Your task to perform on an android device: open a bookmark in the chrome app Image 0: 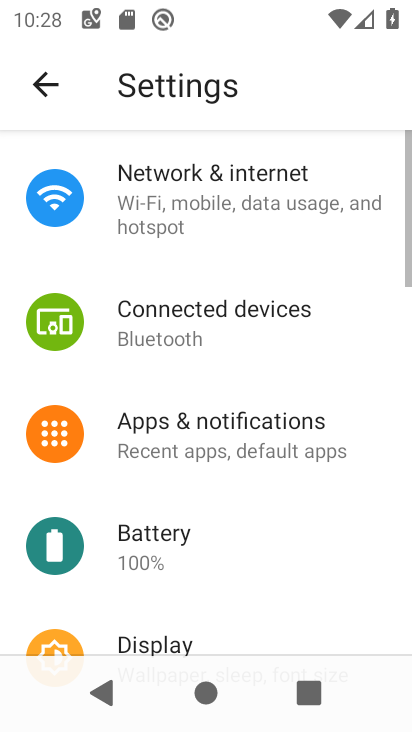
Step 0: press home button
Your task to perform on an android device: open a bookmark in the chrome app Image 1: 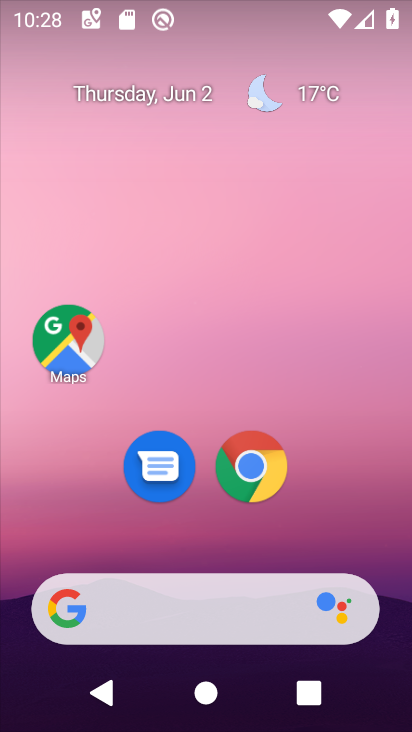
Step 1: drag from (259, 459) to (288, 229)
Your task to perform on an android device: open a bookmark in the chrome app Image 2: 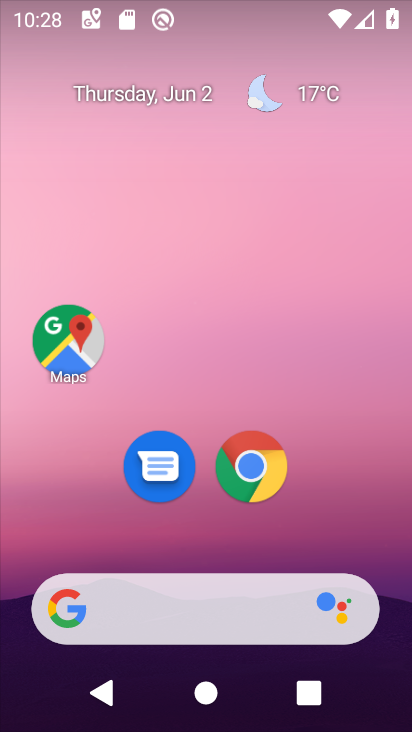
Step 2: click (240, 477)
Your task to perform on an android device: open a bookmark in the chrome app Image 3: 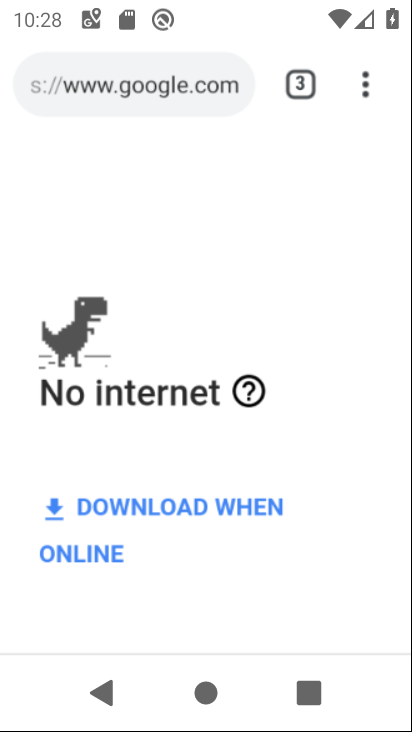
Step 3: click (386, 55)
Your task to perform on an android device: open a bookmark in the chrome app Image 4: 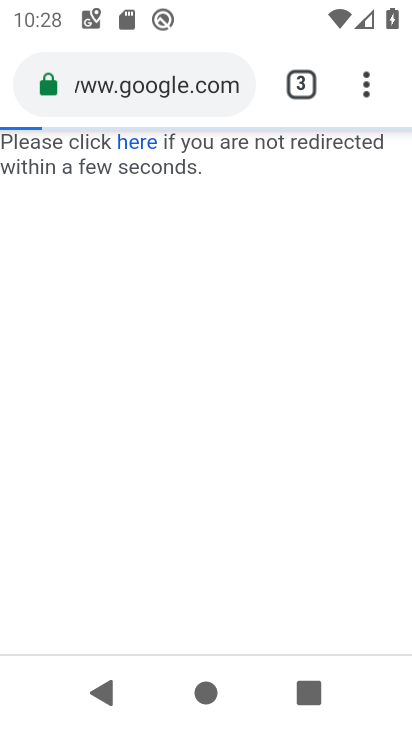
Step 4: click (372, 85)
Your task to perform on an android device: open a bookmark in the chrome app Image 5: 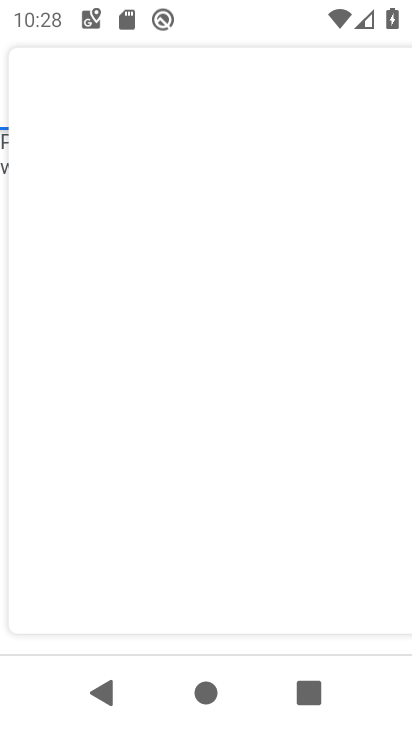
Step 5: click (371, 86)
Your task to perform on an android device: open a bookmark in the chrome app Image 6: 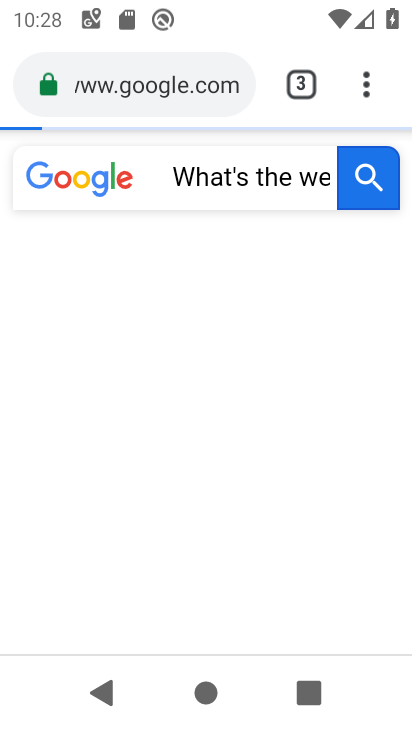
Step 6: click (368, 95)
Your task to perform on an android device: open a bookmark in the chrome app Image 7: 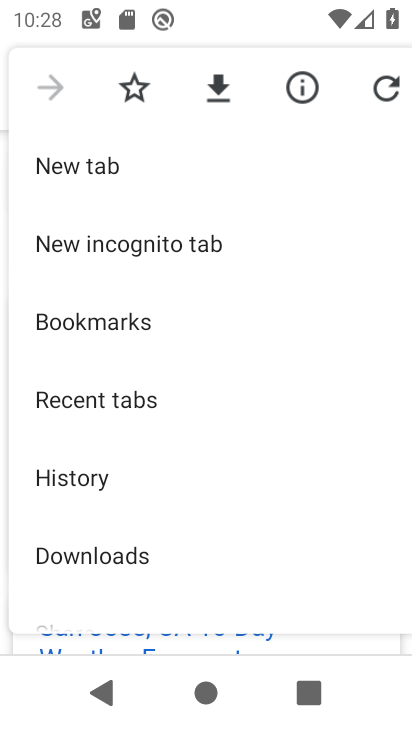
Step 7: drag from (123, 526) to (153, 395)
Your task to perform on an android device: open a bookmark in the chrome app Image 8: 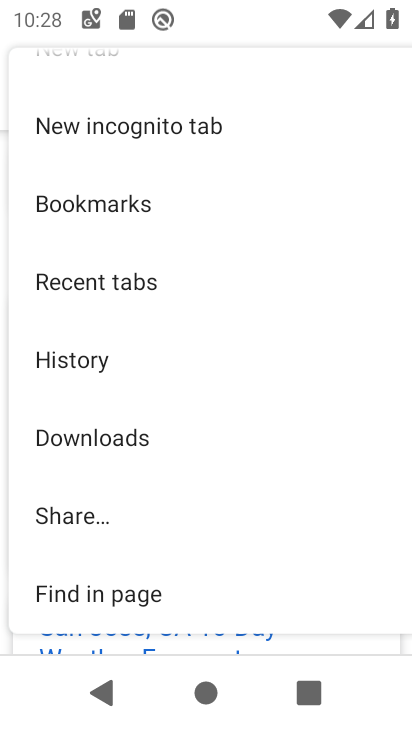
Step 8: click (136, 208)
Your task to perform on an android device: open a bookmark in the chrome app Image 9: 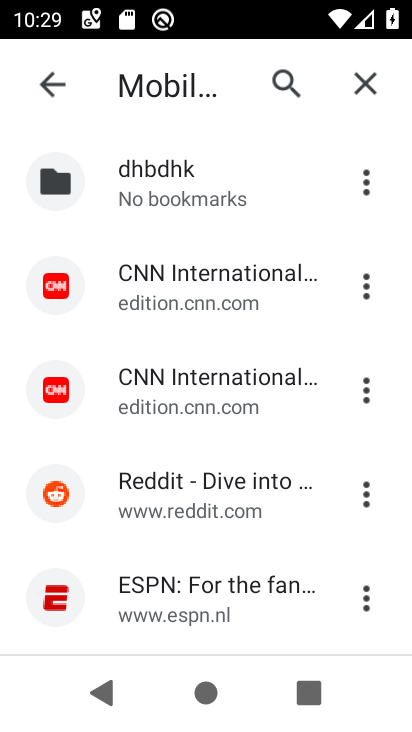
Step 9: task complete